Your task to perform on an android device: Open network settings Image 0: 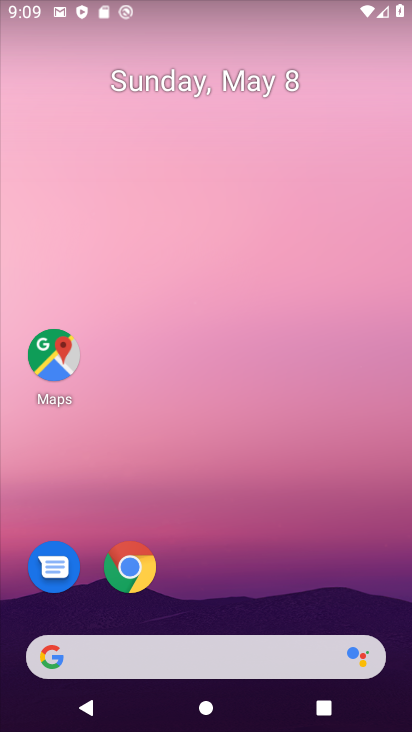
Step 0: drag from (220, 728) to (204, 233)
Your task to perform on an android device: Open network settings Image 1: 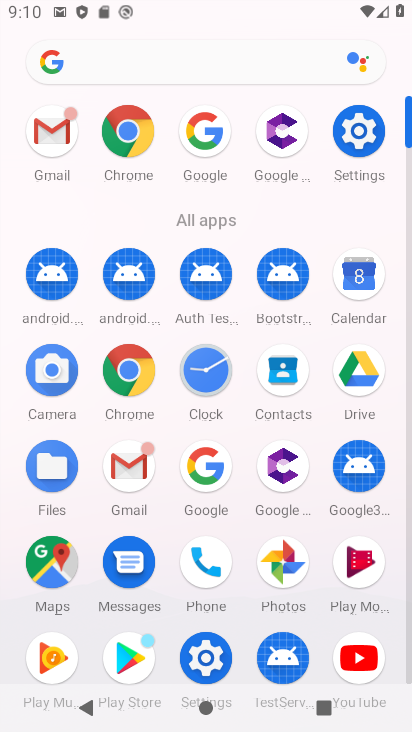
Step 1: click (359, 133)
Your task to perform on an android device: Open network settings Image 2: 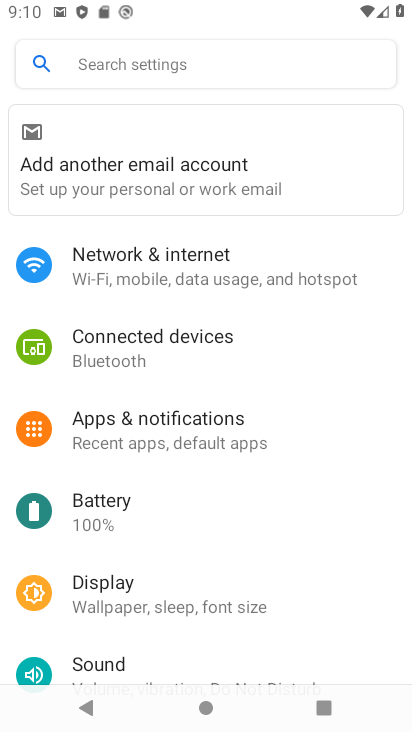
Step 2: click (140, 267)
Your task to perform on an android device: Open network settings Image 3: 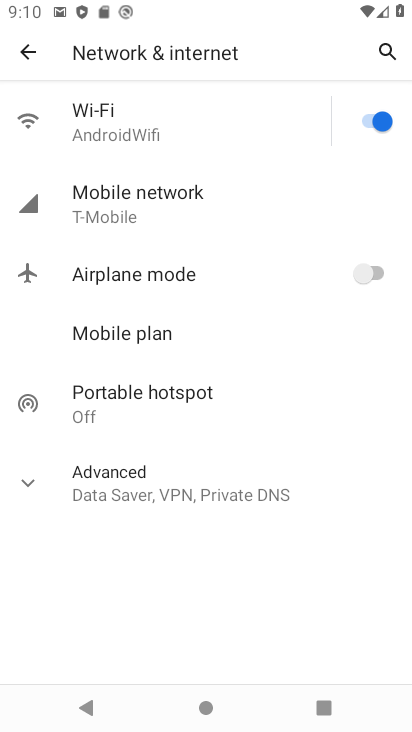
Step 3: task complete